Your task to perform on an android device: Search for seafood restaurants on Google Maps Image 0: 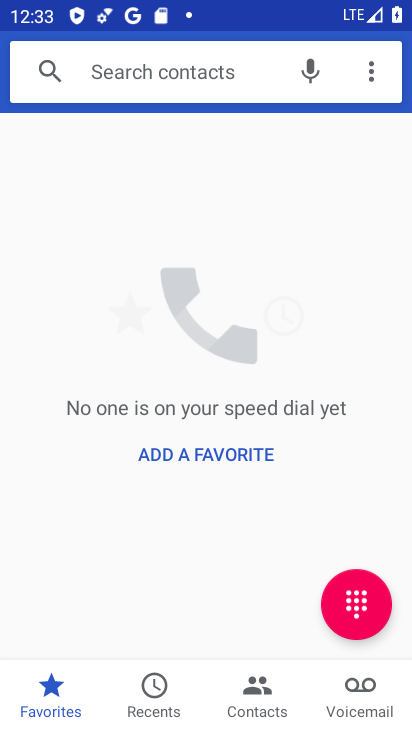
Step 0: press home button
Your task to perform on an android device: Search for seafood restaurants on Google Maps Image 1: 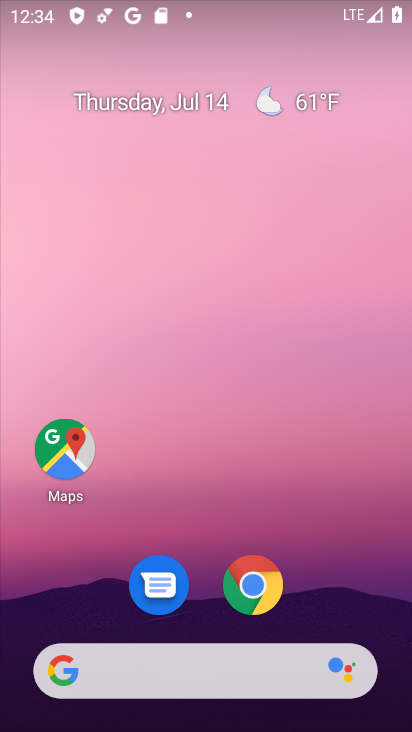
Step 1: click (69, 462)
Your task to perform on an android device: Search for seafood restaurants on Google Maps Image 2: 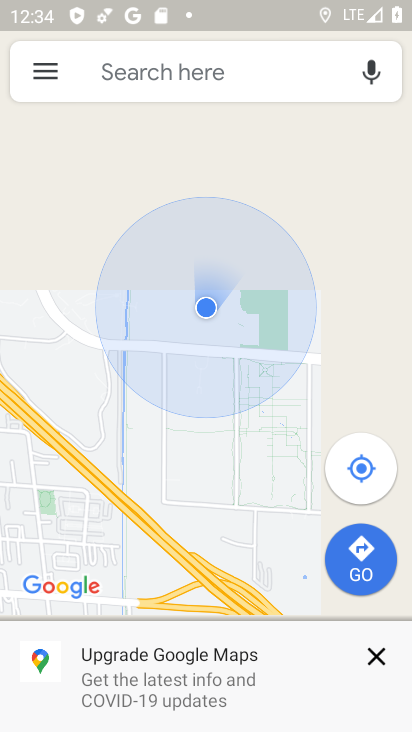
Step 2: click (193, 73)
Your task to perform on an android device: Search for seafood restaurants on Google Maps Image 3: 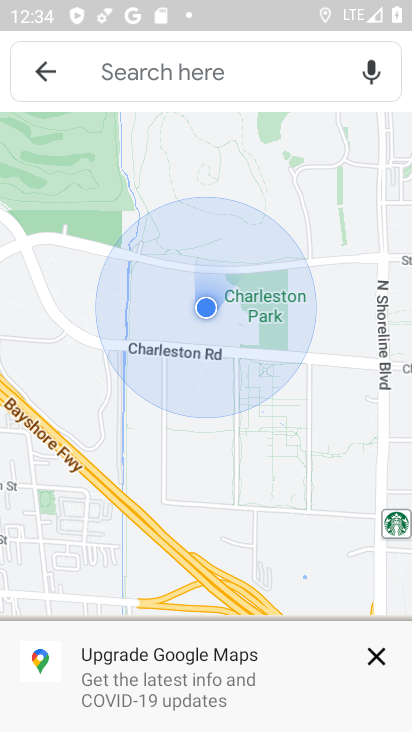
Step 3: click (193, 73)
Your task to perform on an android device: Search for seafood restaurants on Google Maps Image 4: 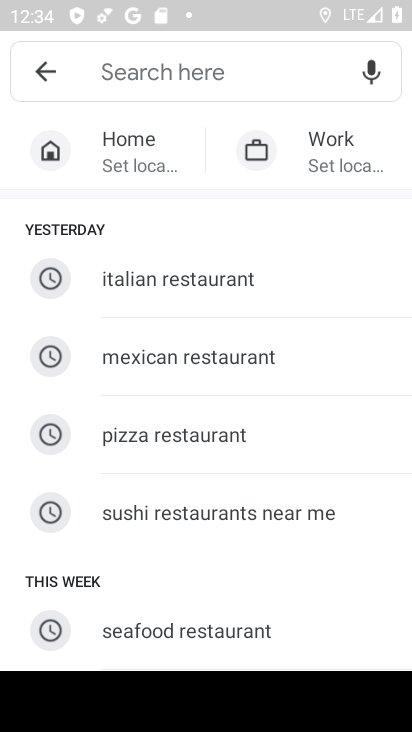
Step 4: click (209, 629)
Your task to perform on an android device: Search for seafood restaurants on Google Maps Image 5: 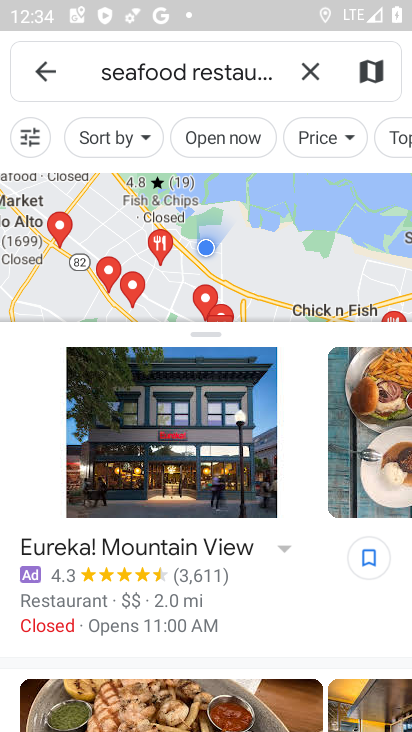
Step 5: task complete